Your task to perform on an android device: open app "Pluto TV - Live TV and Movies" Image 0: 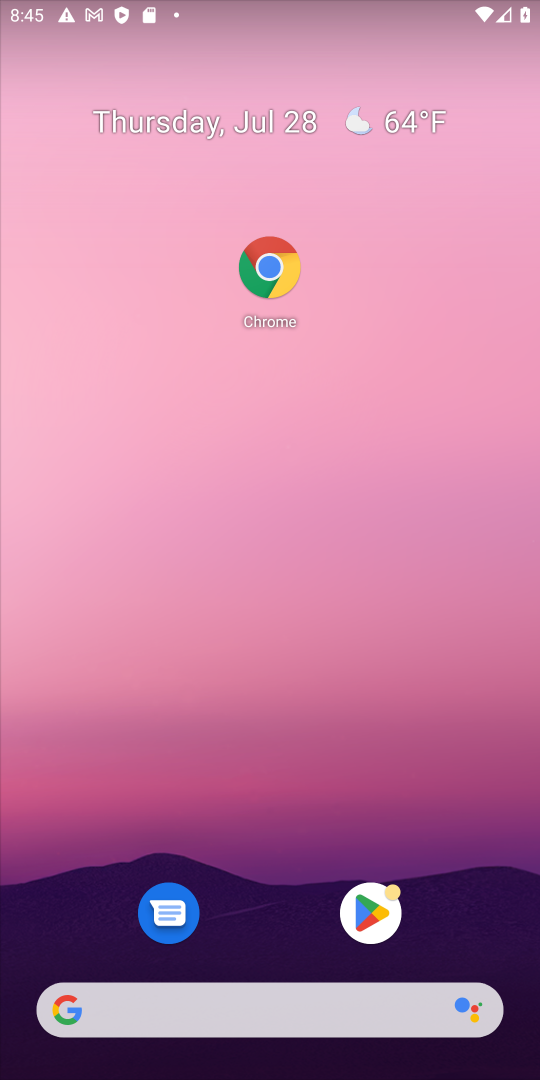
Step 0: press home button
Your task to perform on an android device: open app "Pluto TV - Live TV and Movies" Image 1: 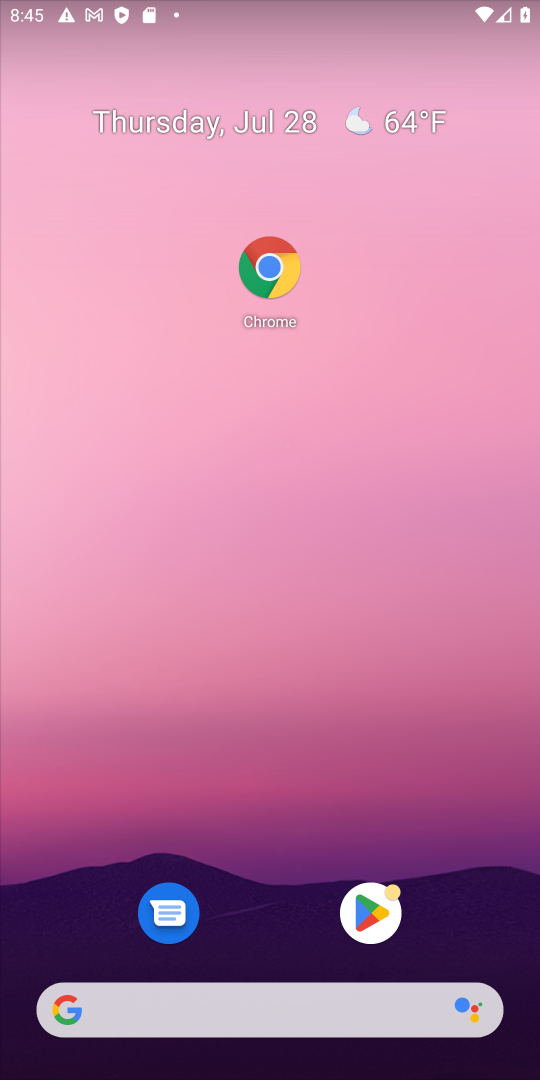
Step 1: click (363, 930)
Your task to perform on an android device: open app "Pluto TV - Live TV and Movies" Image 2: 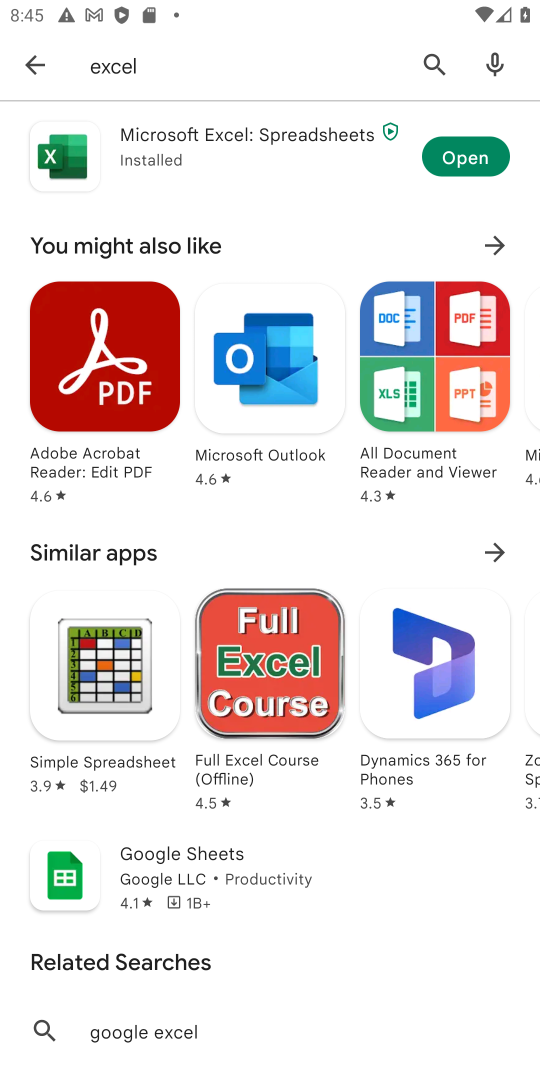
Step 2: click (414, 63)
Your task to perform on an android device: open app "Pluto TV - Live TV and Movies" Image 3: 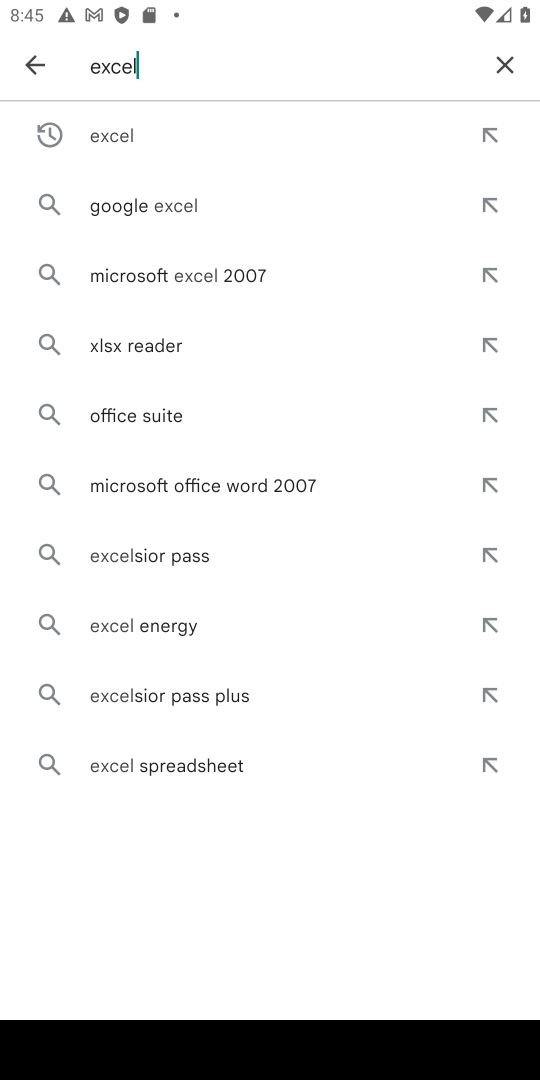
Step 3: click (516, 64)
Your task to perform on an android device: open app "Pluto TV - Live TV and Movies" Image 4: 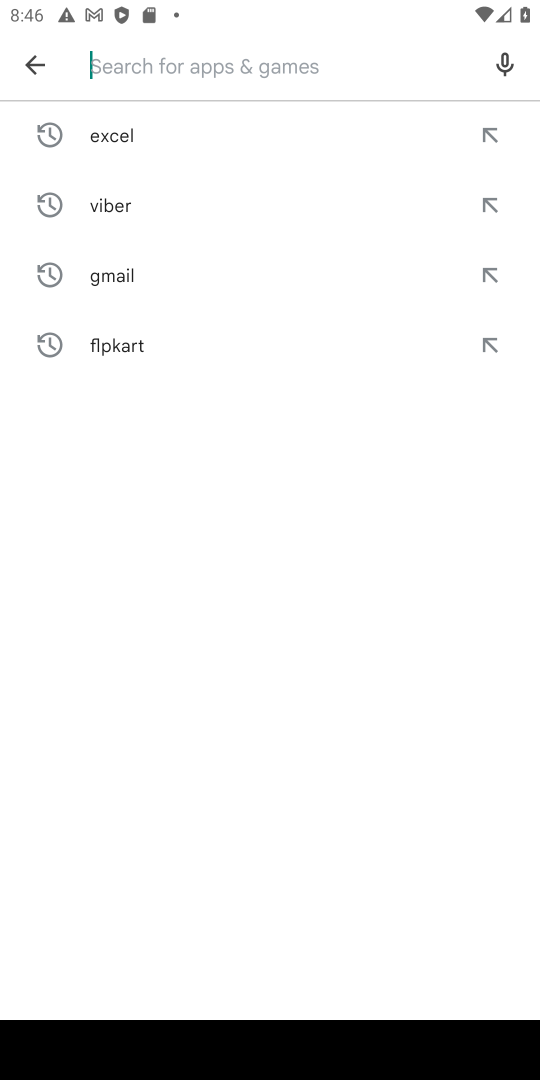
Step 4: type "pkuto tv"
Your task to perform on an android device: open app "Pluto TV - Live TV and Movies" Image 5: 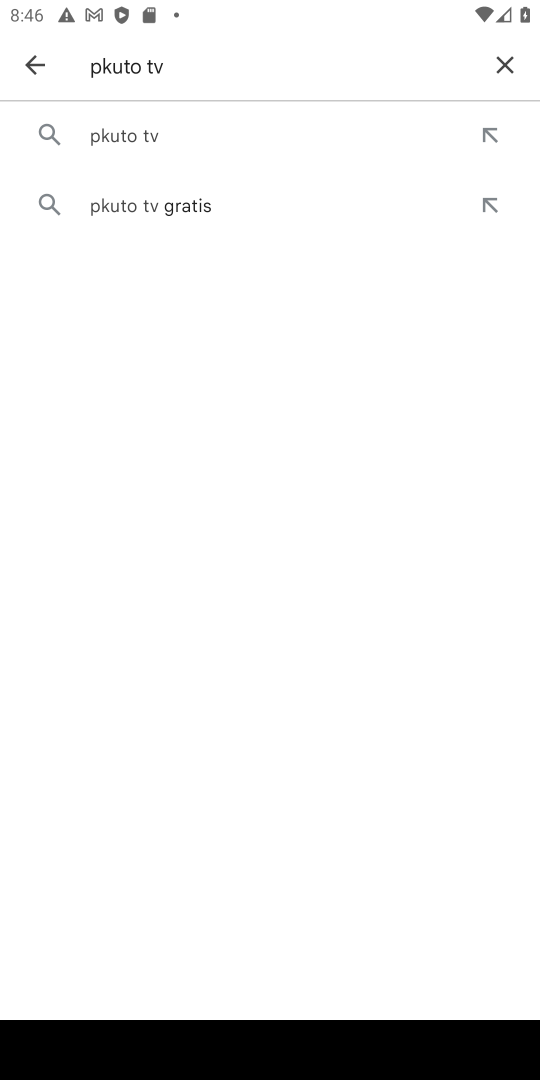
Step 5: click (200, 145)
Your task to perform on an android device: open app "Pluto TV - Live TV and Movies" Image 6: 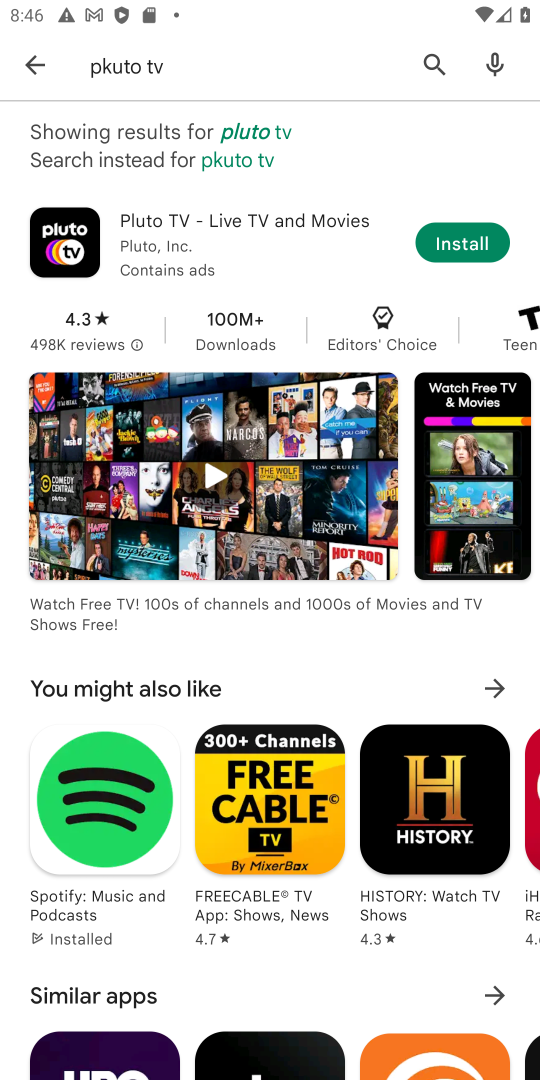
Step 6: task complete